Your task to perform on an android device: Search for "razer nari" on amazon.com, select the first entry, add it to the cart, then select checkout. Image 0: 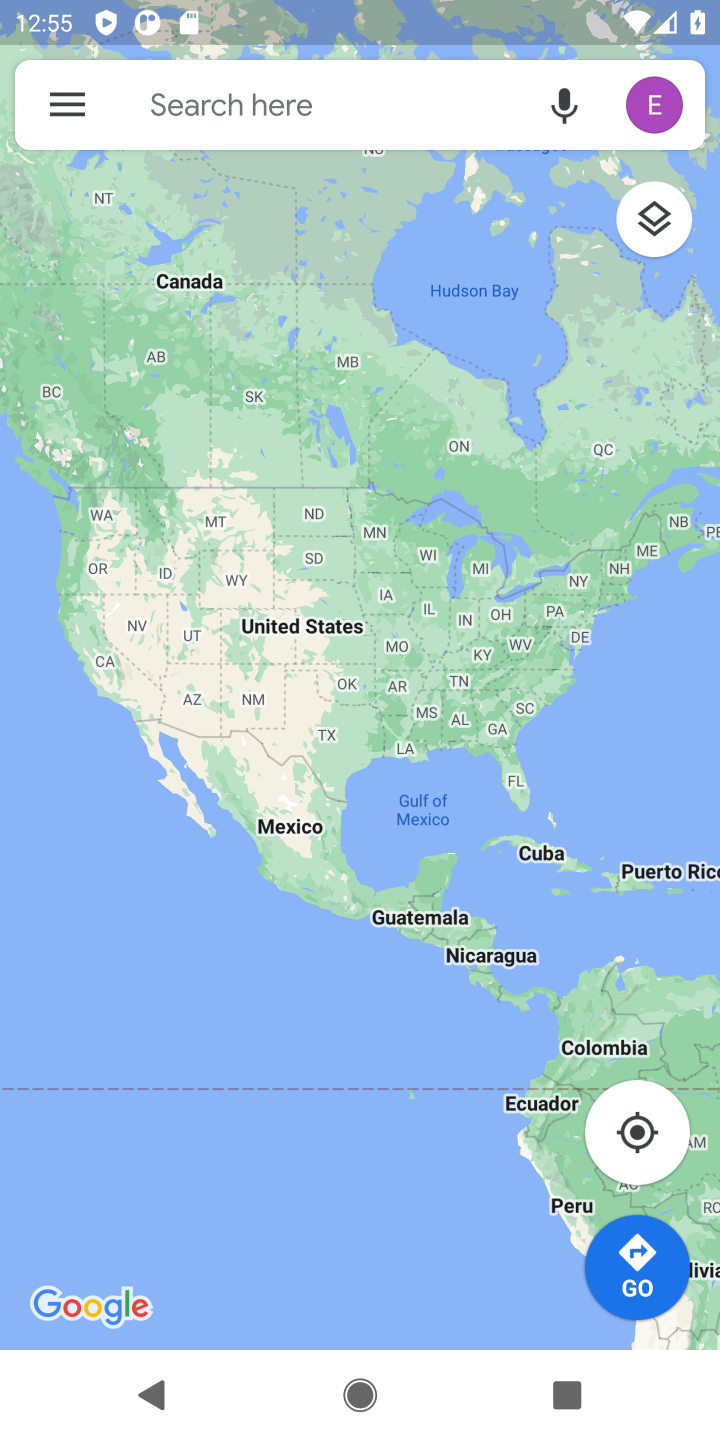
Step 0: press home button
Your task to perform on an android device: Search for "razer nari" on amazon.com, select the first entry, add it to the cart, then select checkout. Image 1: 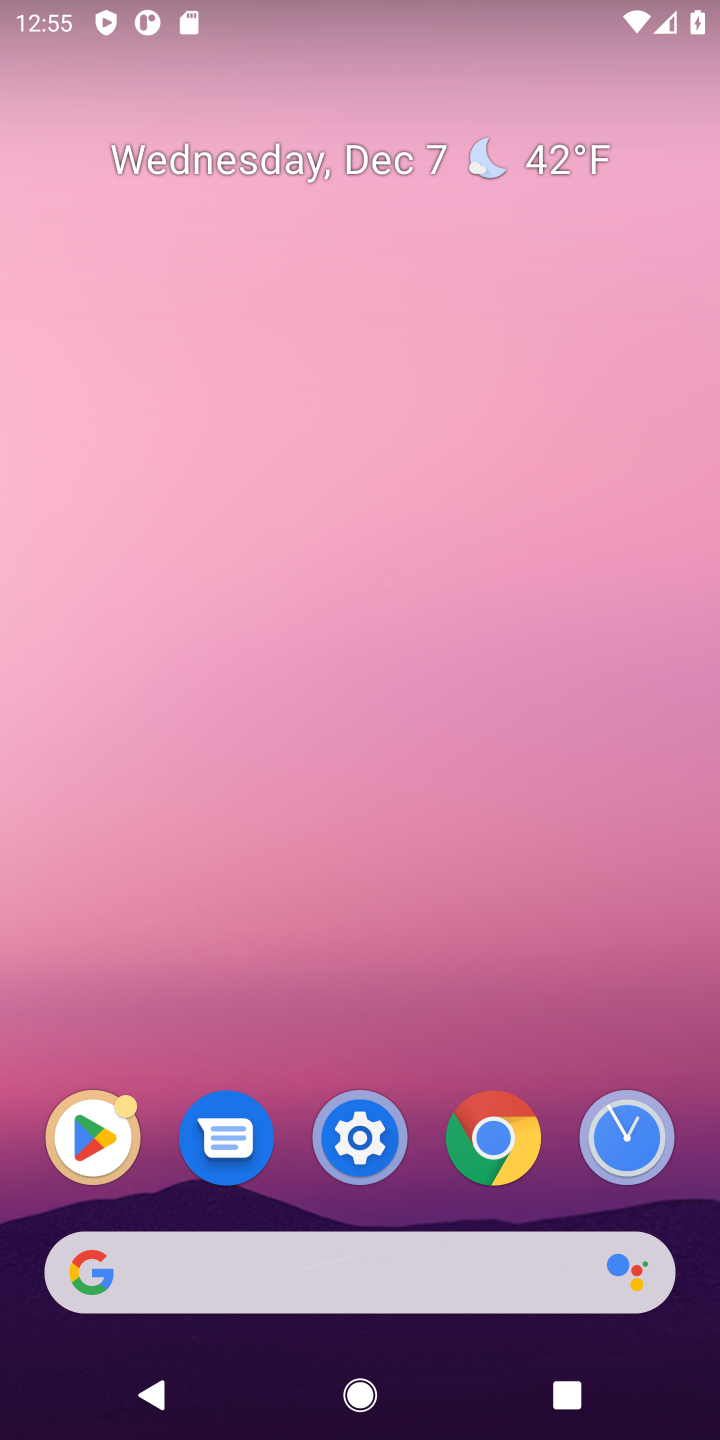
Step 1: click (445, 1261)
Your task to perform on an android device: Search for "razer nari" on amazon.com, select the first entry, add it to the cart, then select checkout. Image 2: 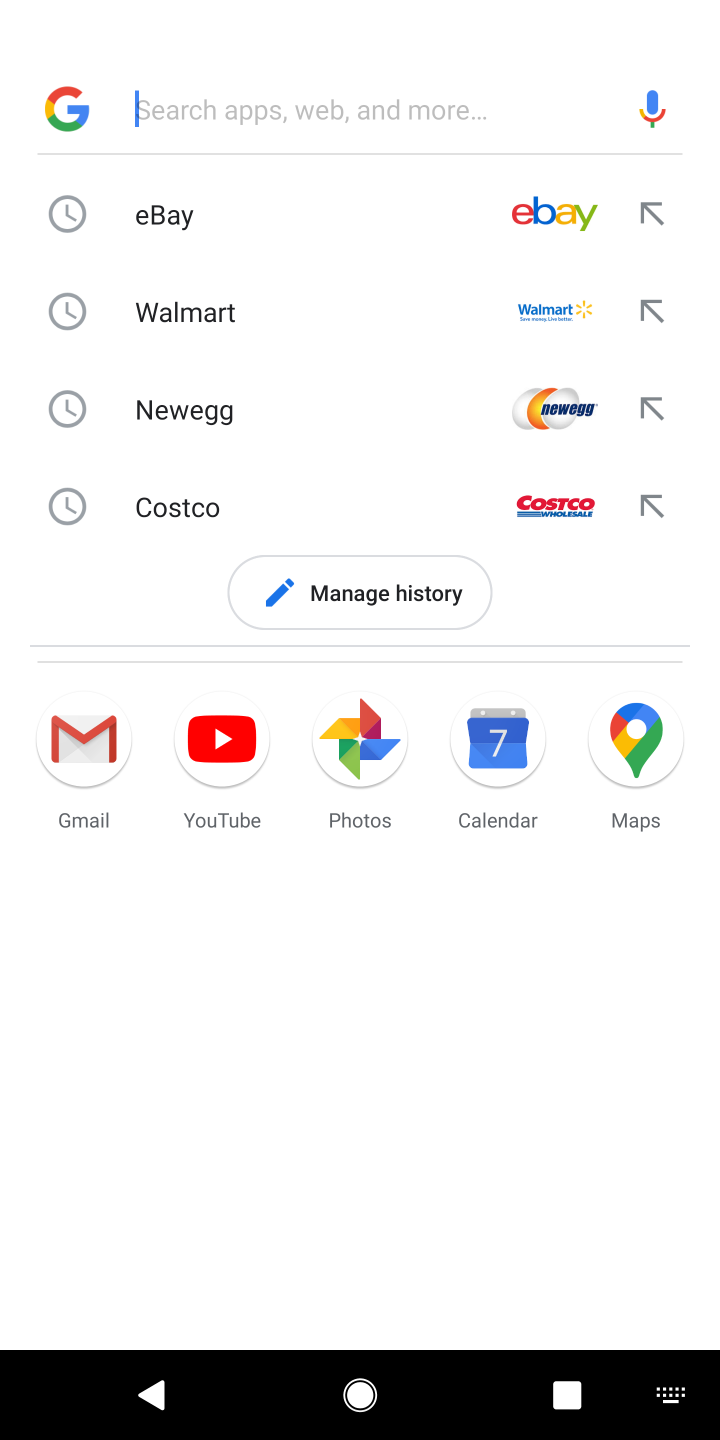
Step 2: type "amazon"
Your task to perform on an android device: Search for "razer nari" on amazon.com, select the first entry, add it to the cart, then select checkout. Image 3: 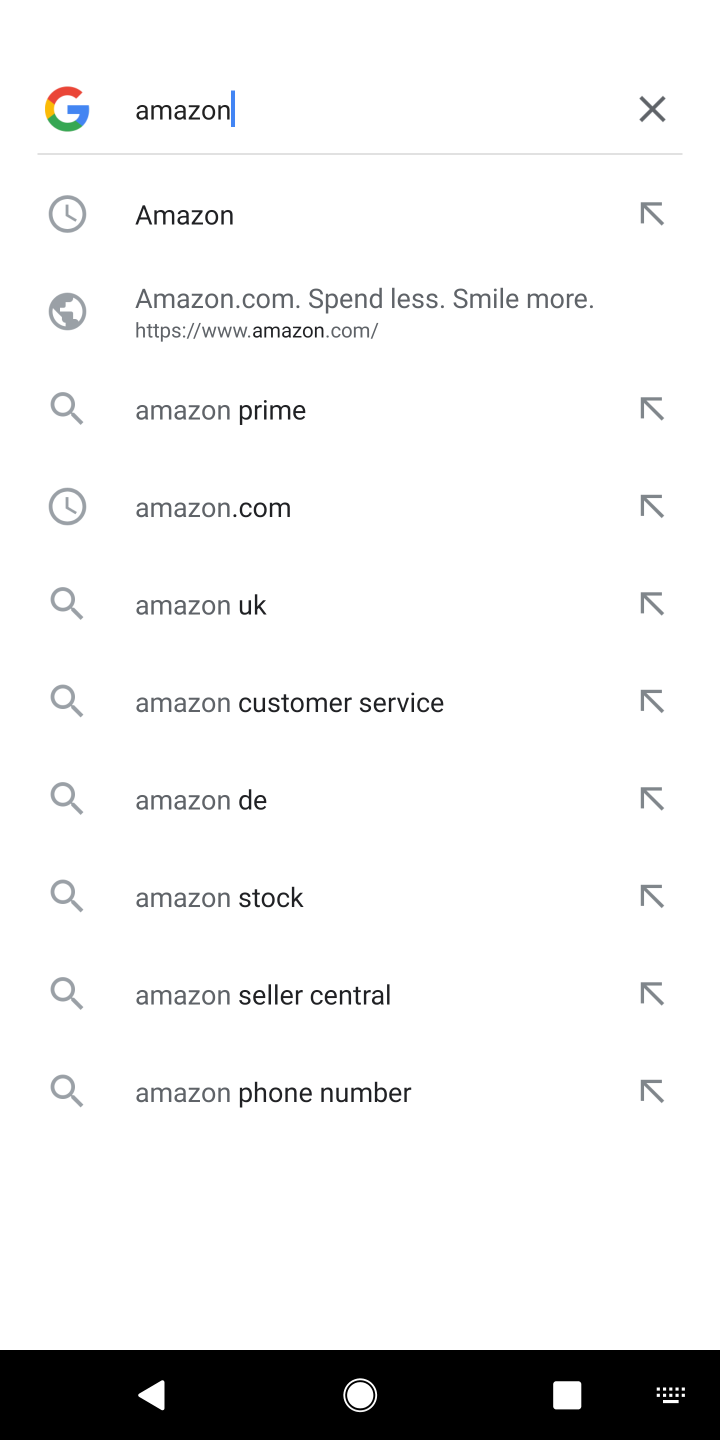
Step 3: click (288, 287)
Your task to perform on an android device: Search for "razer nari" on amazon.com, select the first entry, add it to the cart, then select checkout. Image 4: 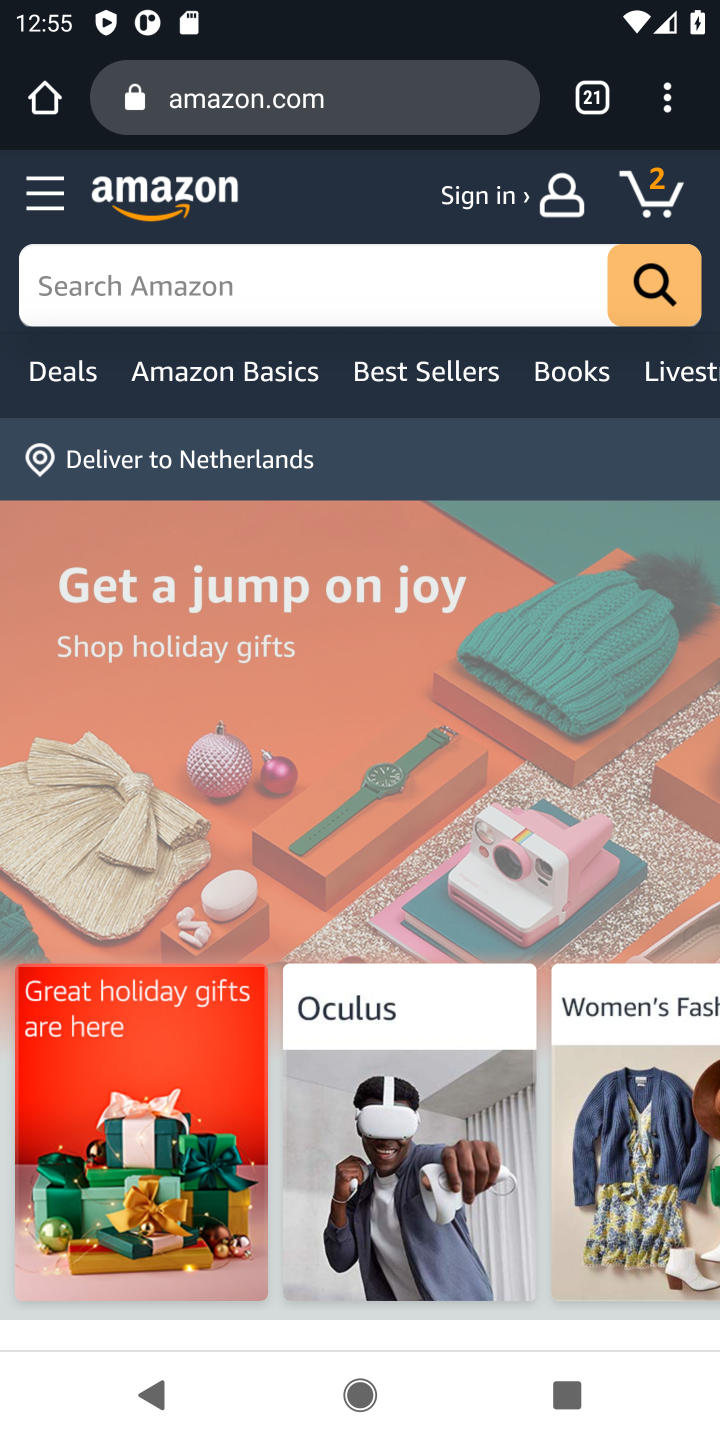
Step 4: click (391, 290)
Your task to perform on an android device: Search for "razer nari" on amazon.com, select the first entry, add it to the cart, then select checkout. Image 5: 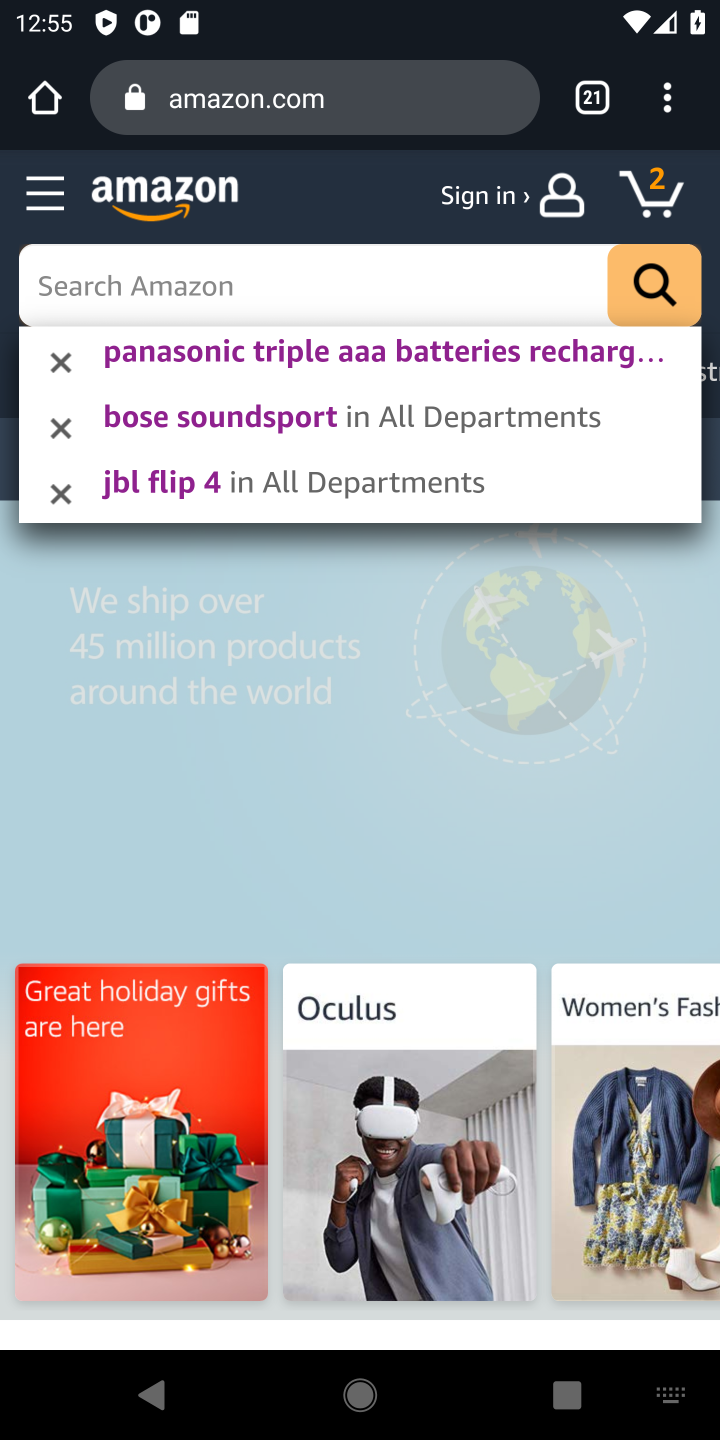
Step 5: type "razer nari"
Your task to perform on an android device: Search for "razer nari" on amazon.com, select the first entry, add it to the cart, then select checkout. Image 6: 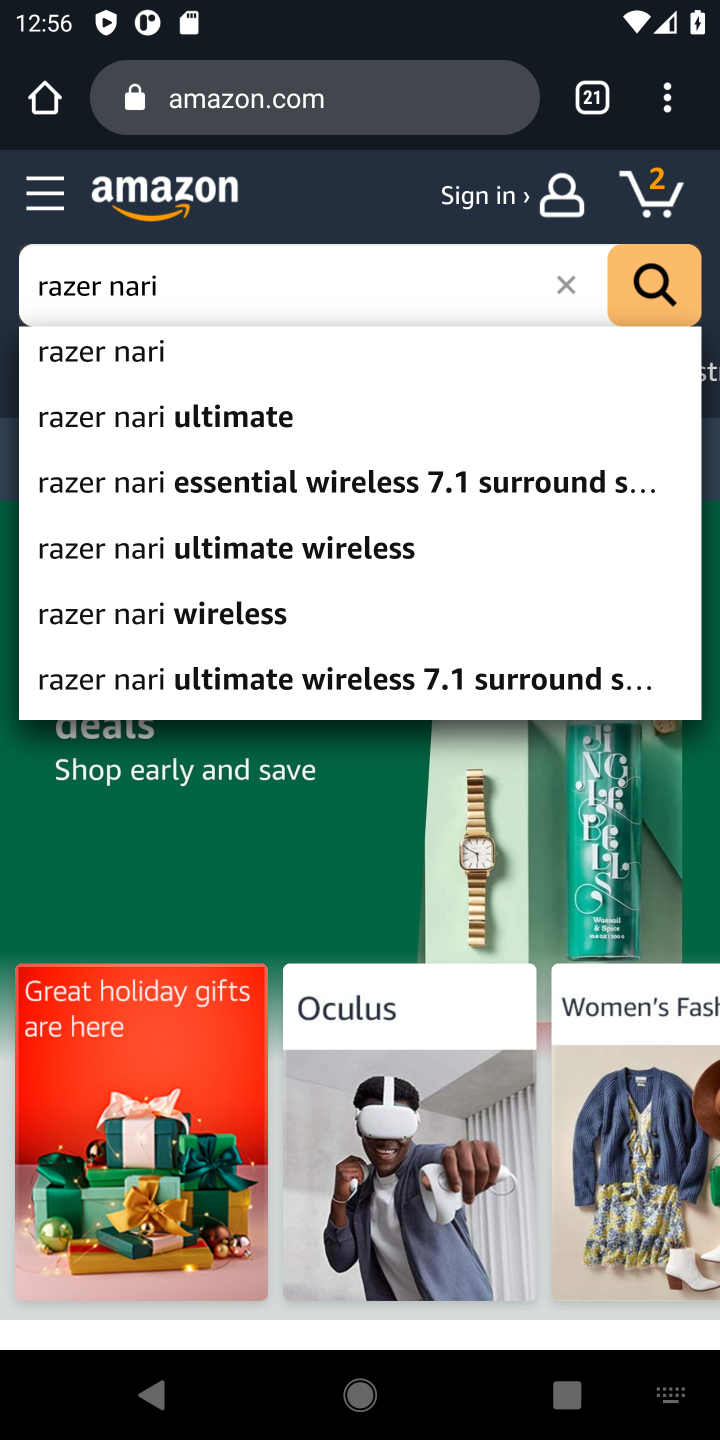
Step 6: click (639, 287)
Your task to perform on an android device: Search for "razer nari" on amazon.com, select the first entry, add it to the cart, then select checkout. Image 7: 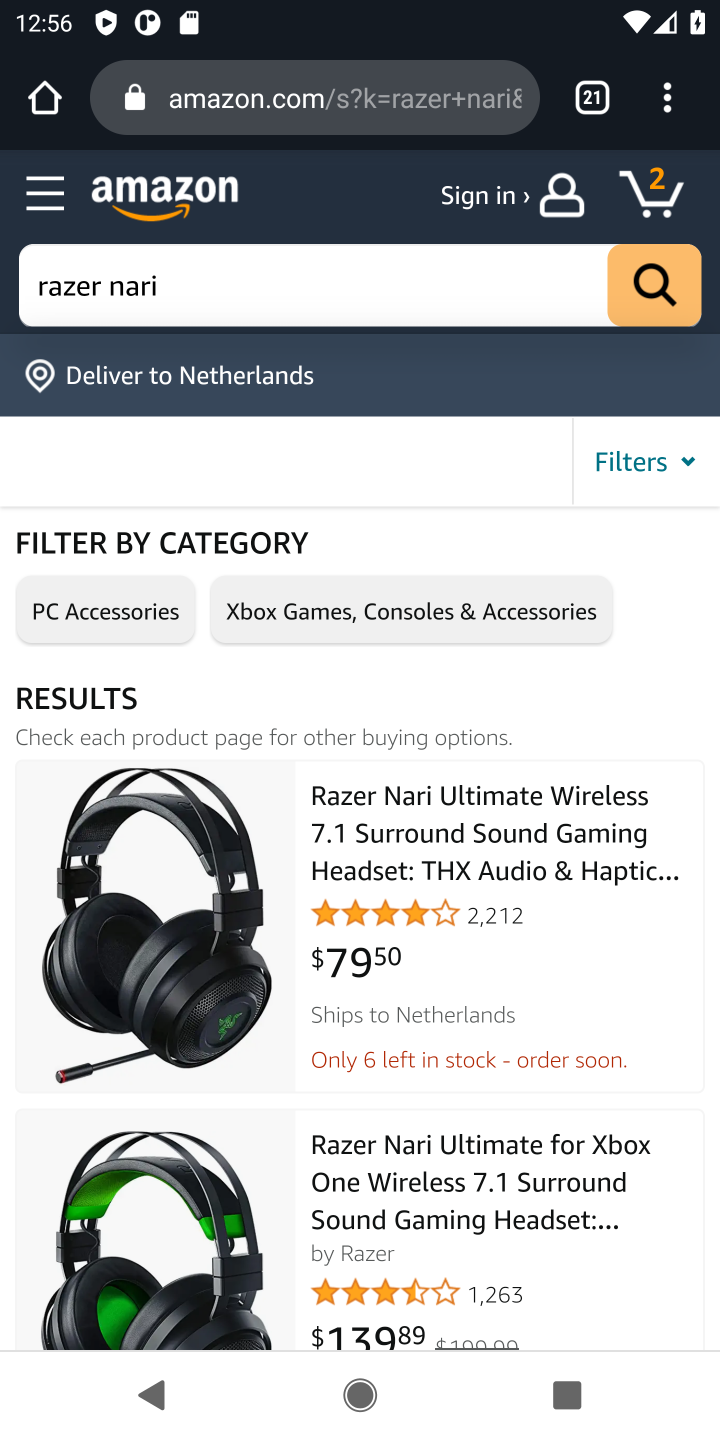
Step 7: click (353, 786)
Your task to perform on an android device: Search for "razer nari" on amazon.com, select the first entry, add it to the cart, then select checkout. Image 8: 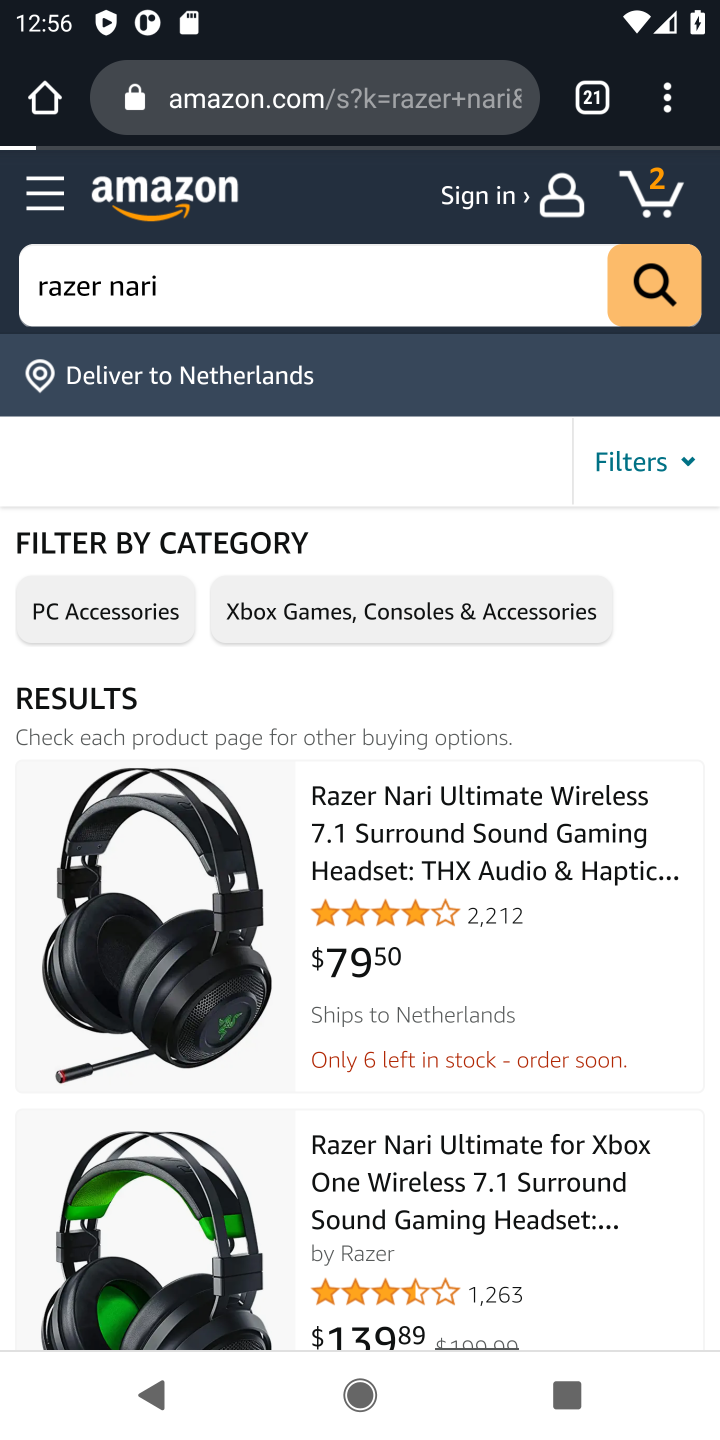
Step 8: task complete